Your task to perform on an android device: check android version Image 0: 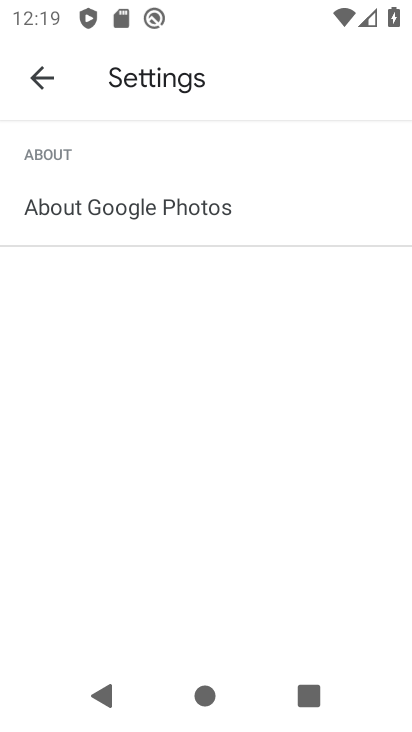
Step 0: press home button
Your task to perform on an android device: check android version Image 1: 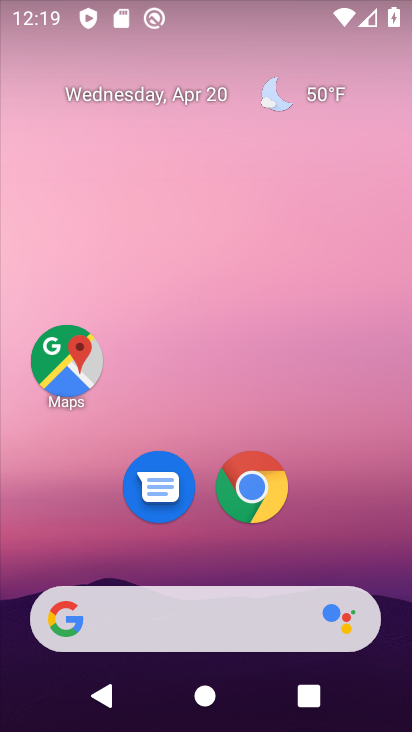
Step 1: drag from (334, 558) to (298, 94)
Your task to perform on an android device: check android version Image 2: 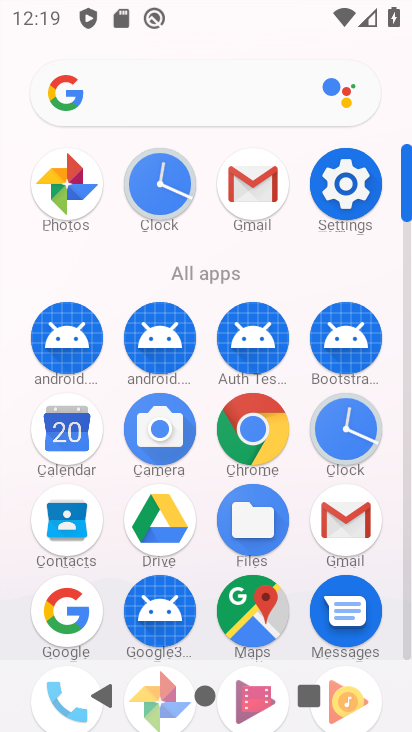
Step 2: click (352, 184)
Your task to perform on an android device: check android version Image 3: 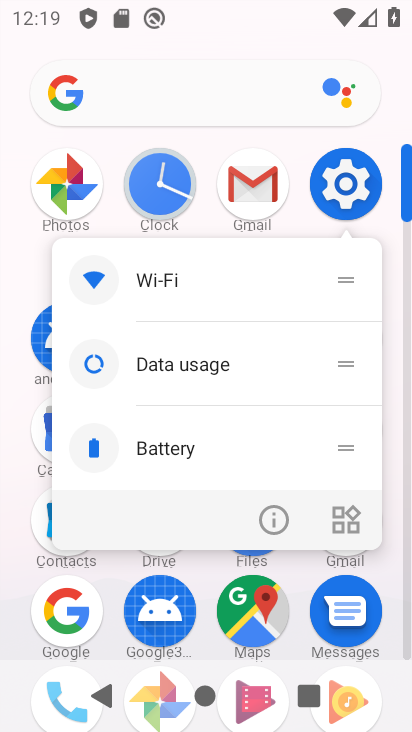
Step 3: click (352, 184)
Your task to perform on an android device: check android version Image 4: 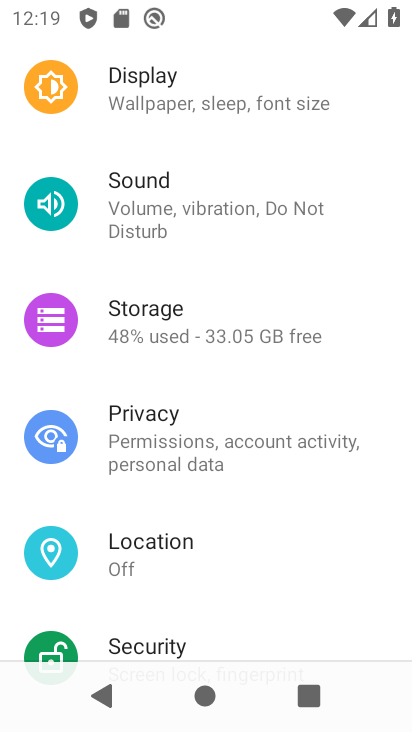
Step 4: drag from (205, 559) to (263, 144)
Your task to perform on an android device: check android version Image 5: 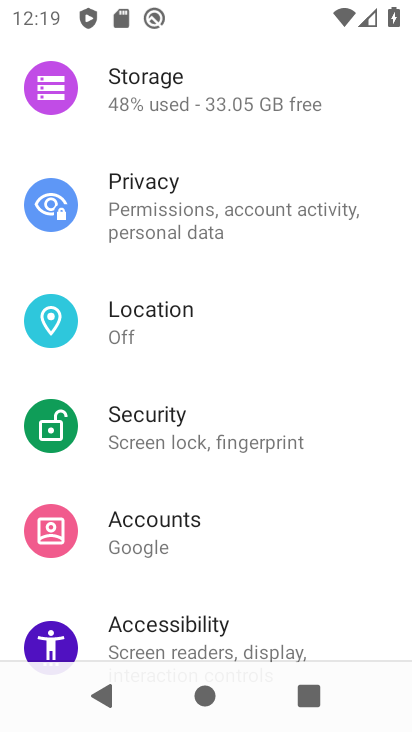
Step 5: drag from (244, 470) to (249, 229)
Your task to perform on an android device: check android version Image 6: 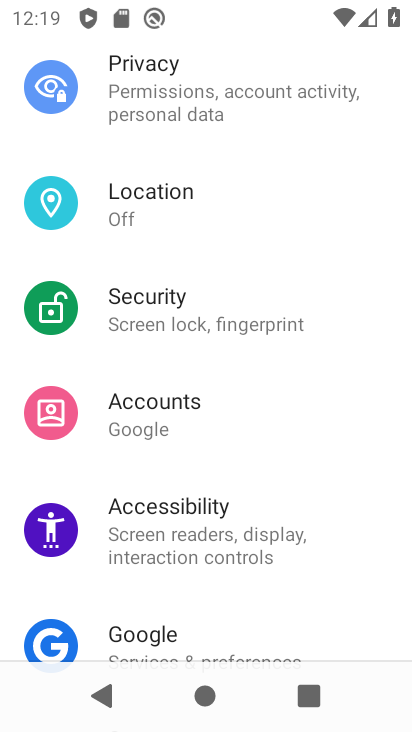
Step 6: drag from (212, 613) to (275, 276)
Your task to perform on an android device: check android version Image 7: 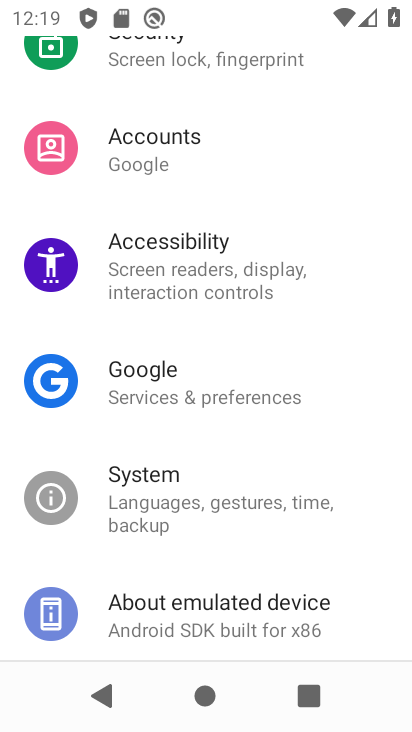
Step 7: click (245, 604)
Your task to perform on an android device: check android version Image 8: 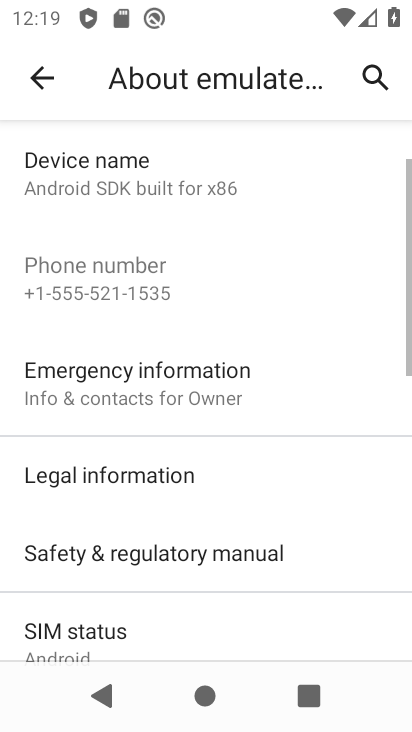
Step 8: drag from (271, 627) to (298, 251)
Your task to perform on an android device: check android version Image 9: 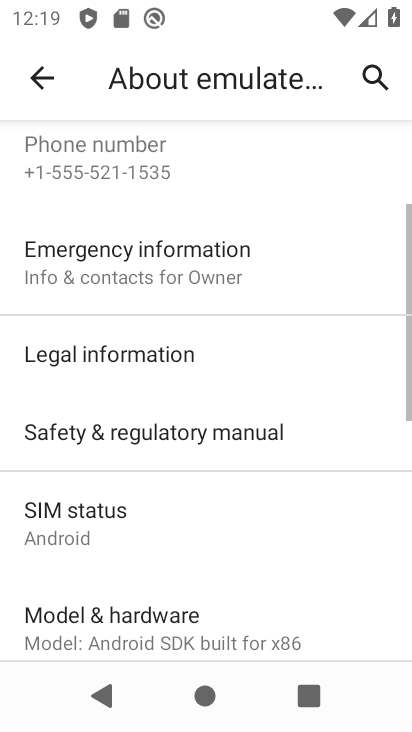
Step 9: drag from (323, 536) to (318, 184)
Your task to perform on an android device: check android version Image 10: 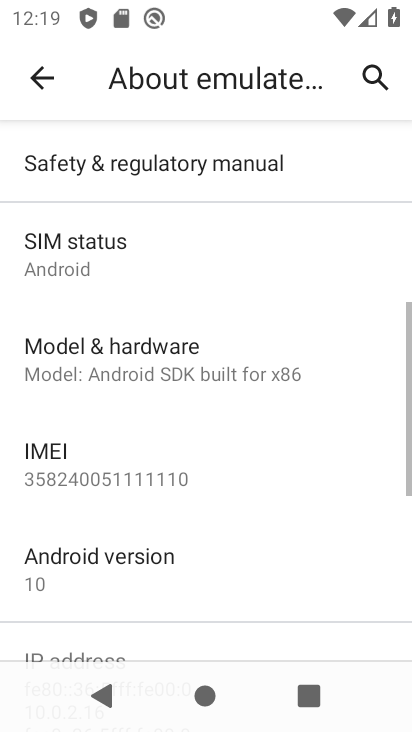
Step 10: click (316, 579)
Your task to perform on an android device: check android version Image 11: 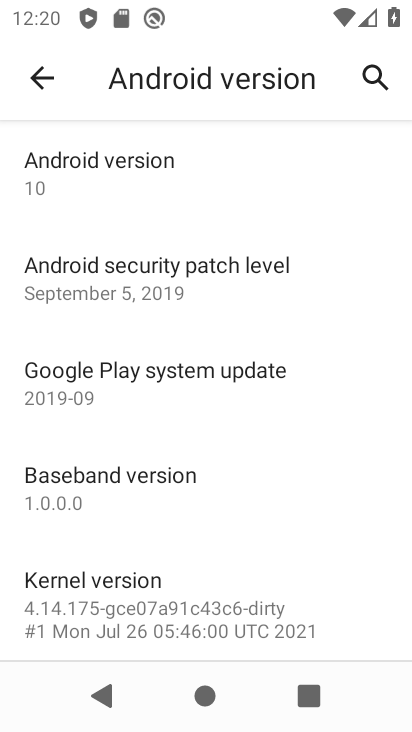
Step 11: task complete